Your task to perform on an android device: Search for a new lawnmower on Lowes.com Image 0: 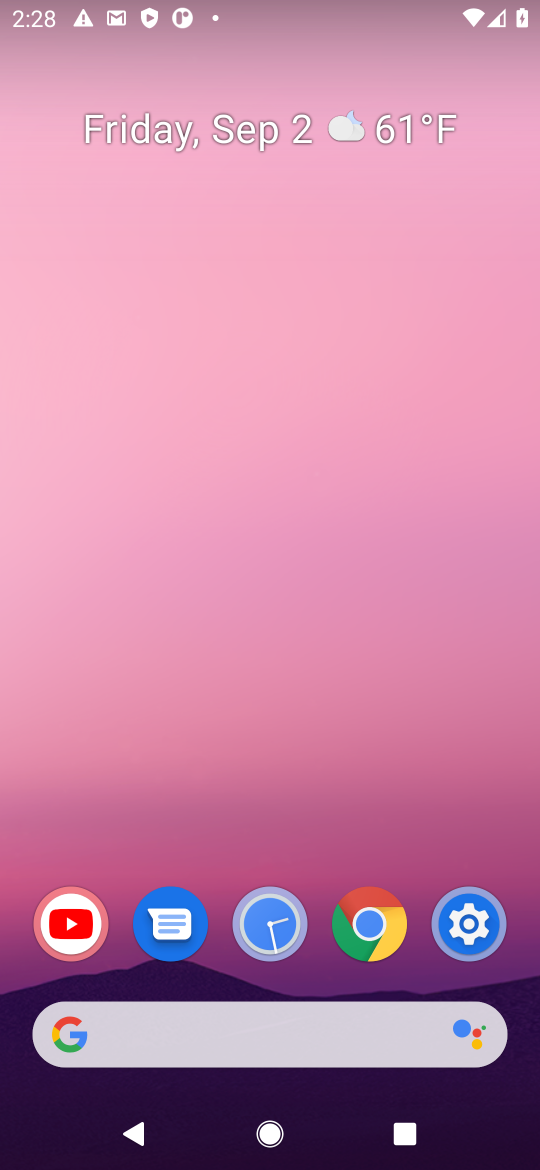
Step 0: click (388, 1027)
Your task to perform on an android device: Search for a new lawnmower on Lowes.com Image 1: 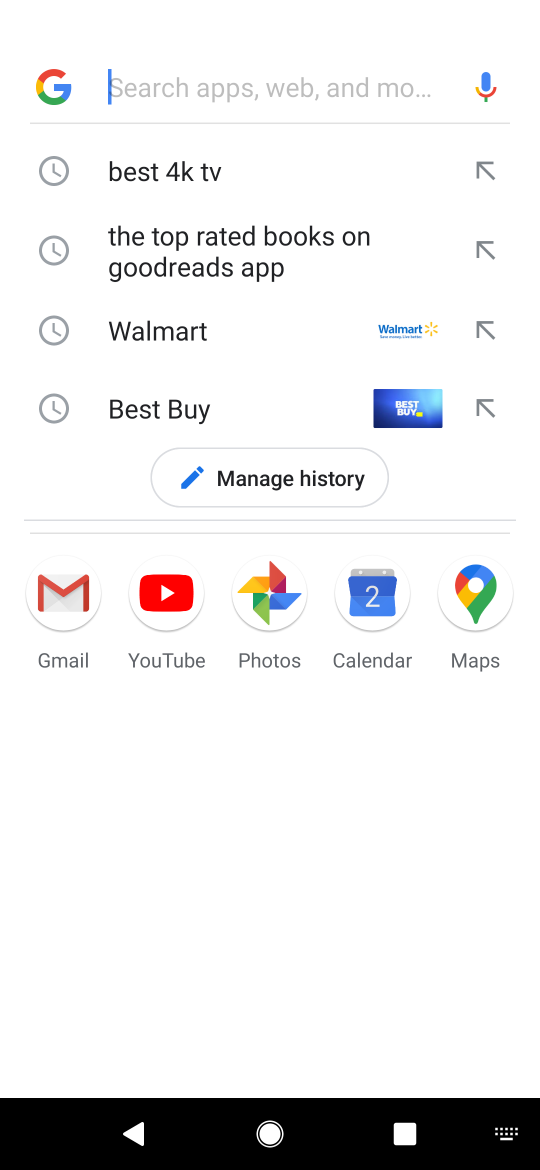
Step 1: press enter
Your task to perform on an android device: Search for a new lawnmower on Lowes.com Image 2: 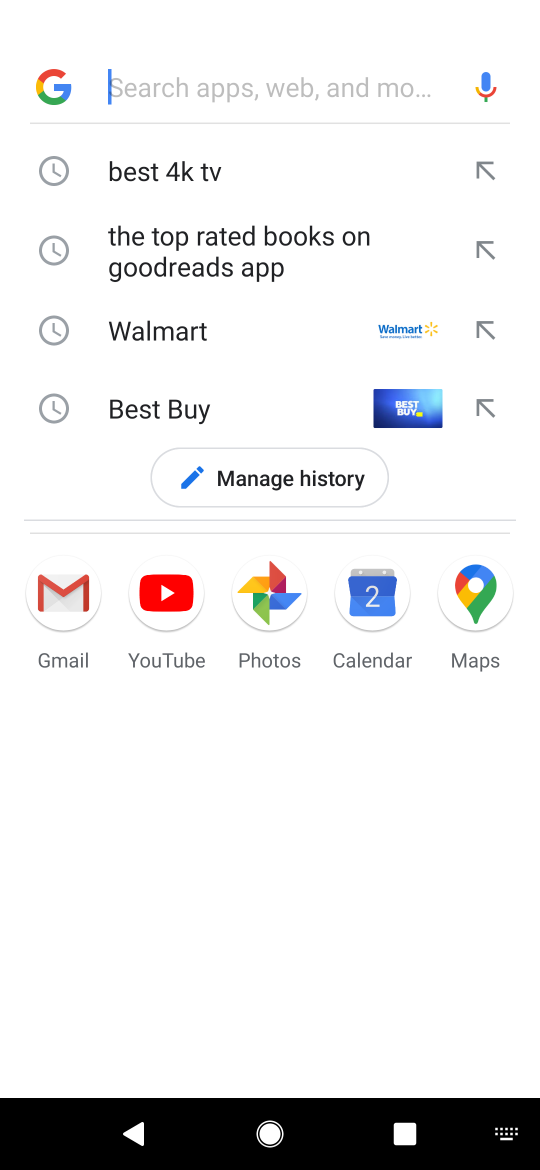
Step 2: type "lowes.com"
Your task to perform on an android device: Search for a new lawnmower on Lowes.com Image 3: 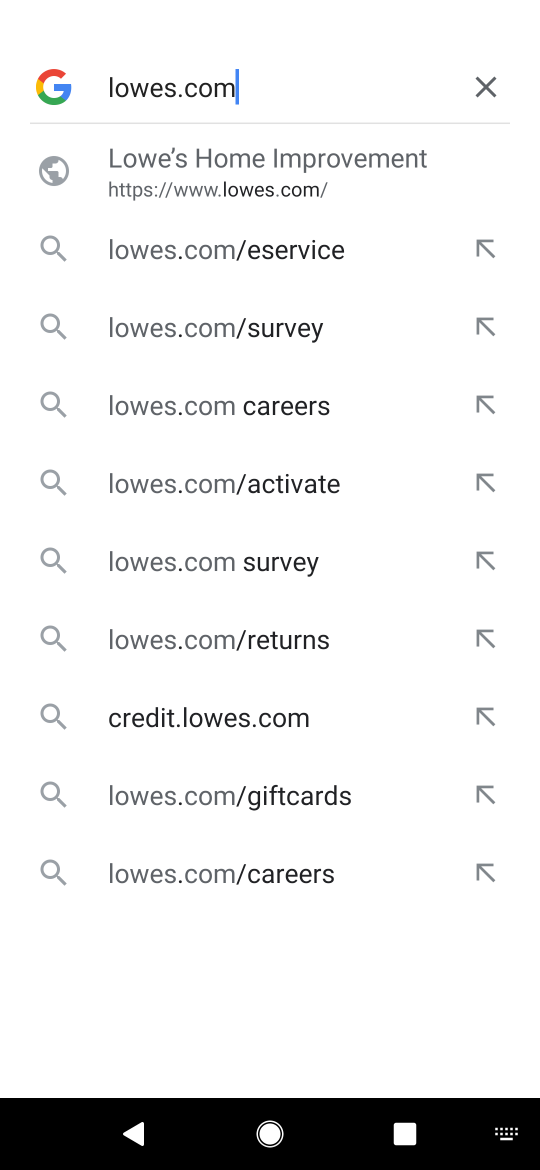
Step 3: click (264, 180)
Your task to perform on an android device: Search for a new lawnmower on Lowes.com Image 4: 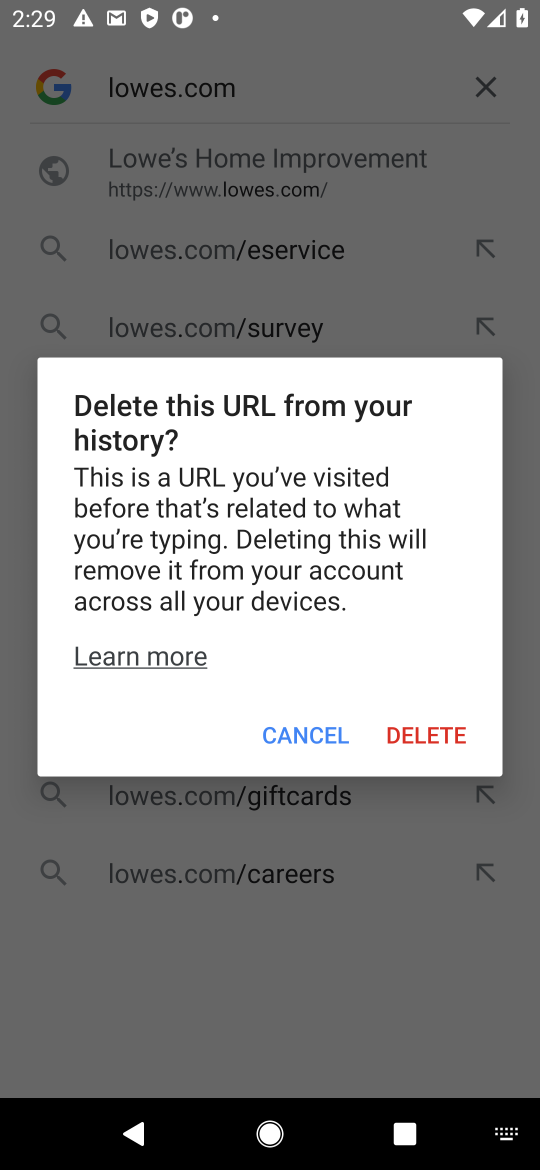
Step 4: click (312, 733)
Your task to perform on an android device: Search for a new lawnmower on Lowes.com Image 5: 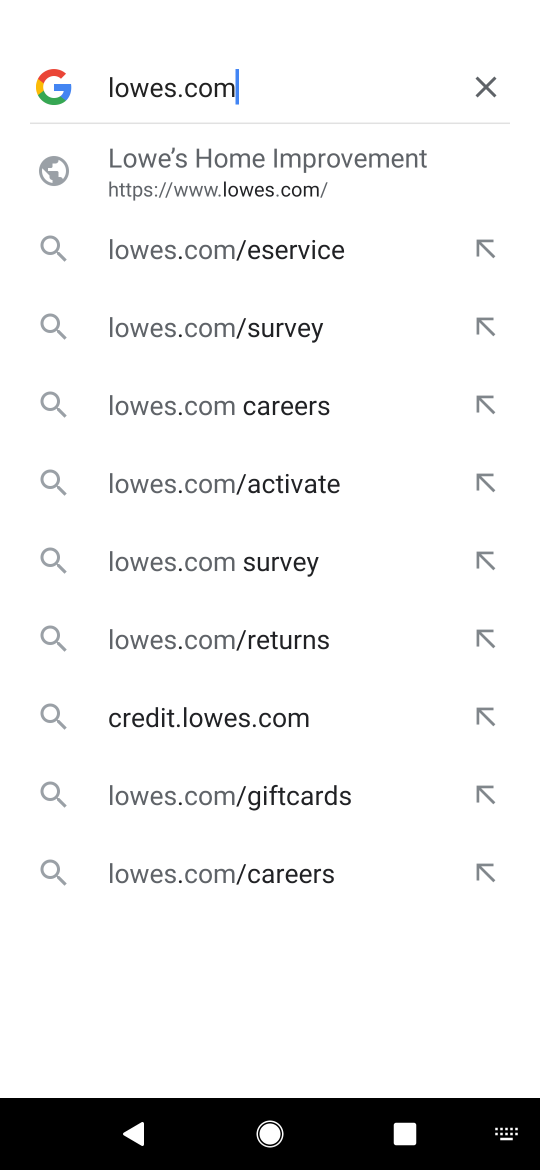
Step 5: click (280, 175)
Your task to perform on an android device: Search for a new lawnmower on Lowes.com Image 6: 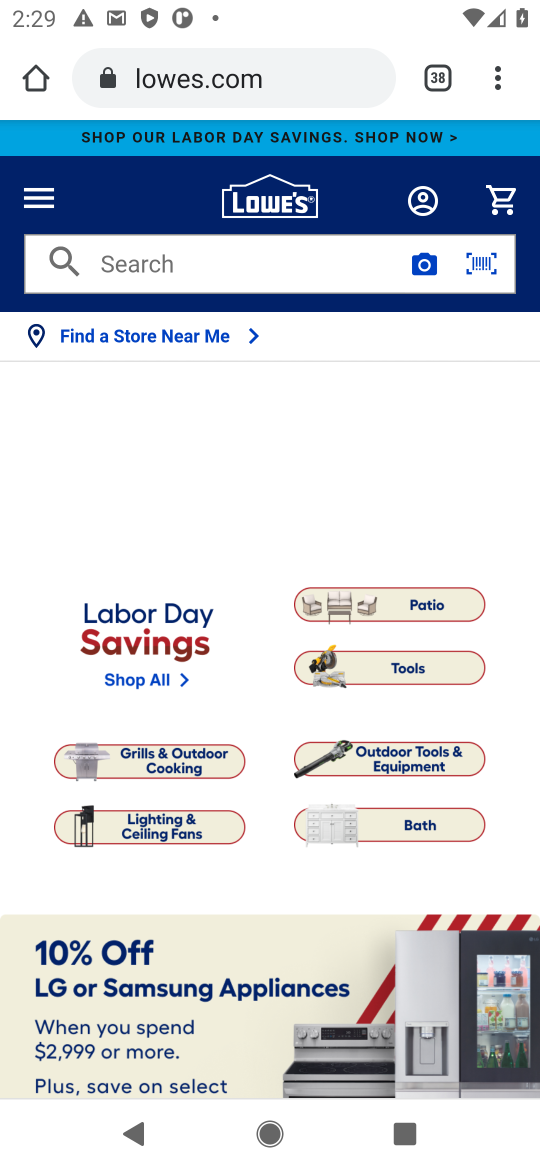
Step 6: click (262, 269)
Your task to perform on an android device: Search for a new lawnmower on Lowes.com Image 7: 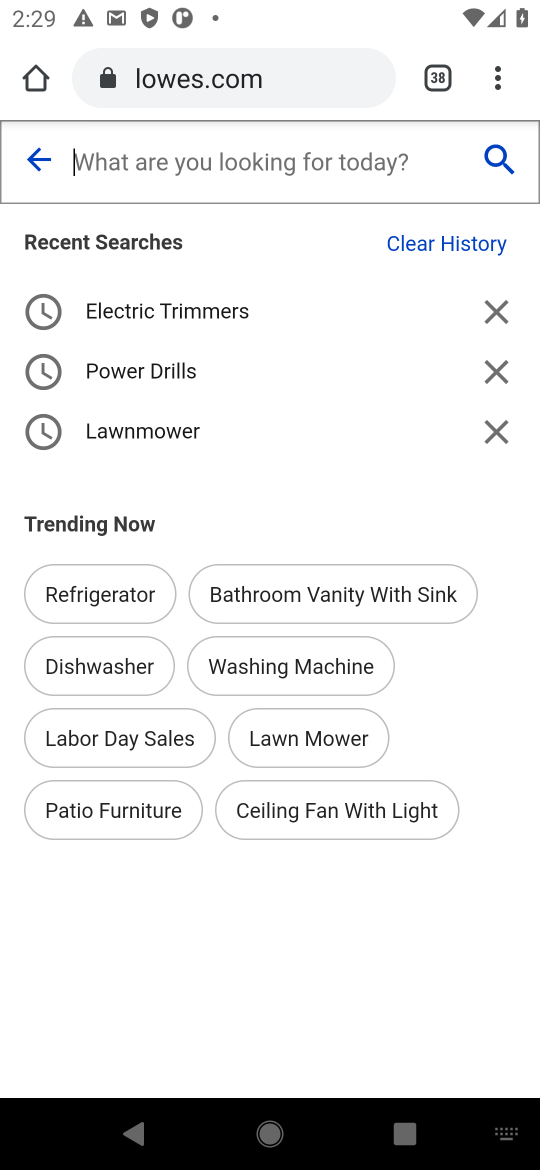
Step 7: type "new lawnmower"
Your task to perform on an android device: Search for a new lawnmower on Lowes.com Image 8: 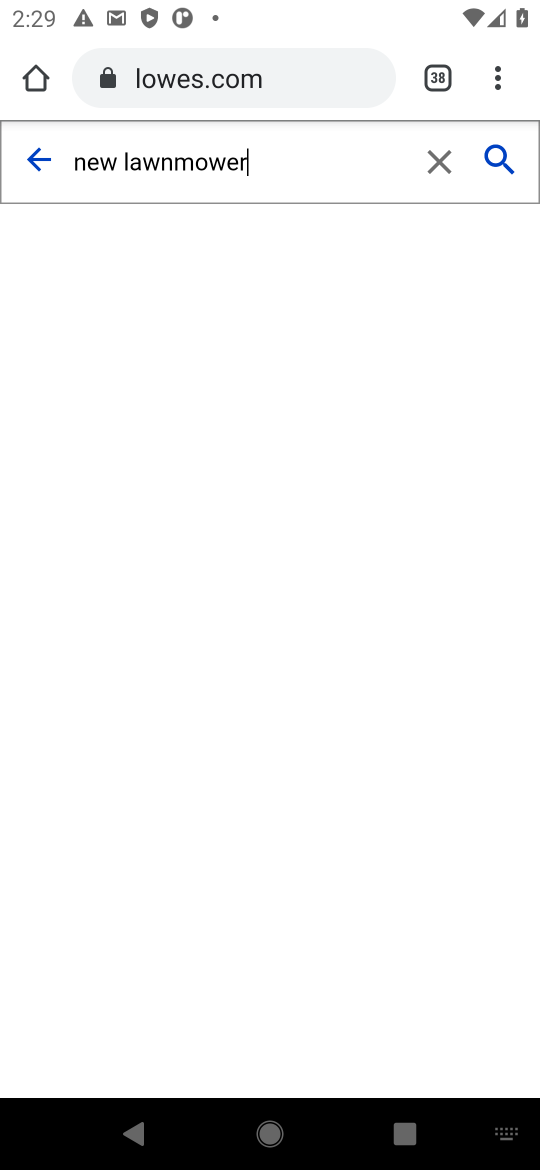
Step 8: click (493, 155)
Your task to perform on an android device: Search for a new lawnmower on Lowes.com Image 9: 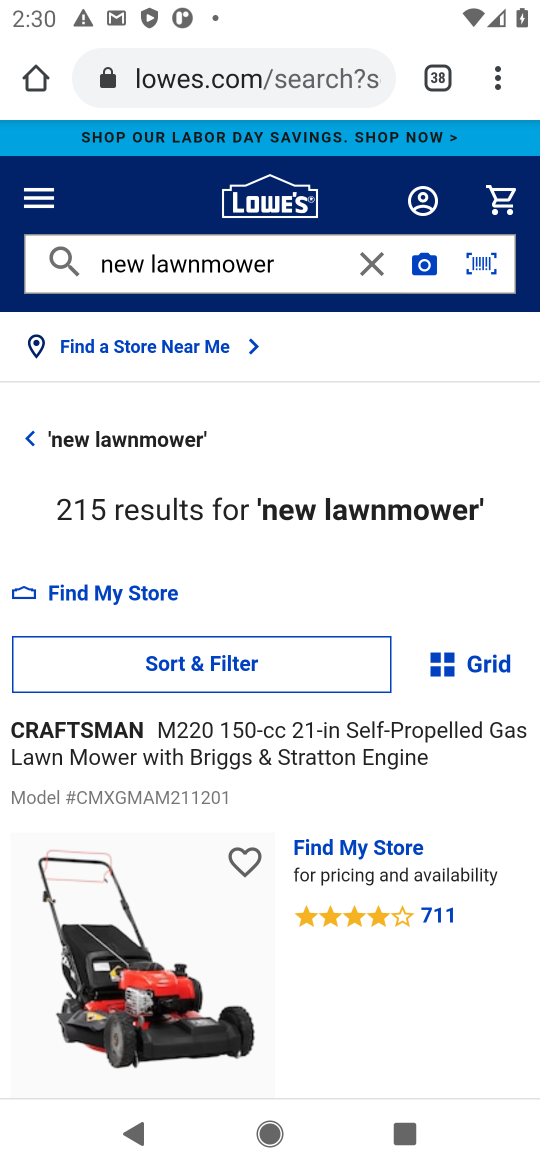
Step 9: task complete